Your task to perform on an android device: change the clock display to analog Image 0: 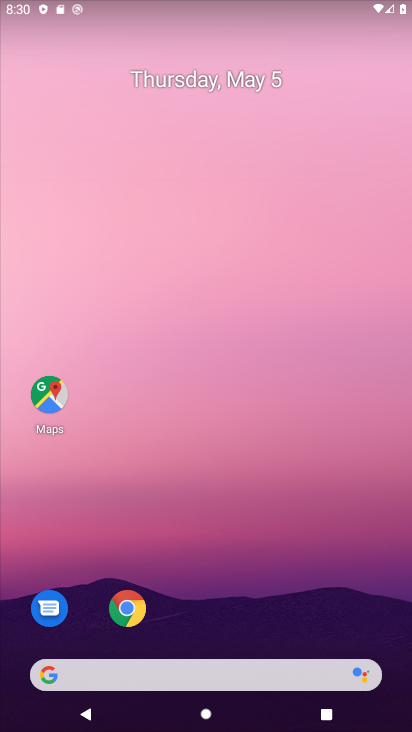
Step 0: drag from (243, 663) to (229, 98)
Your task to perform on an android device: change the clock display to analog Image 1: 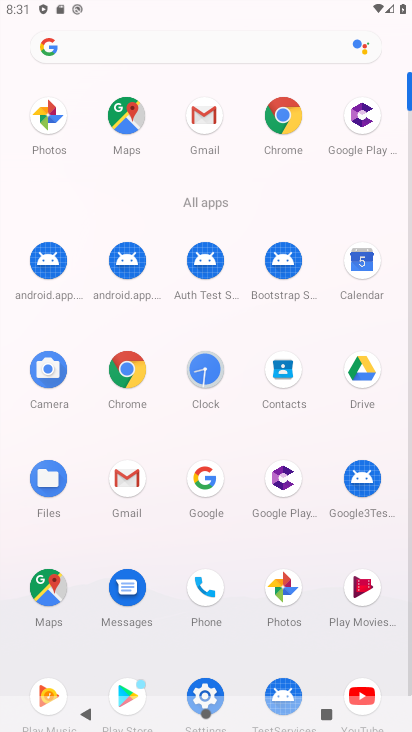
Step 1: click (210, 370)
Your task to perform on an android device: change the clock display to analog Image 2: 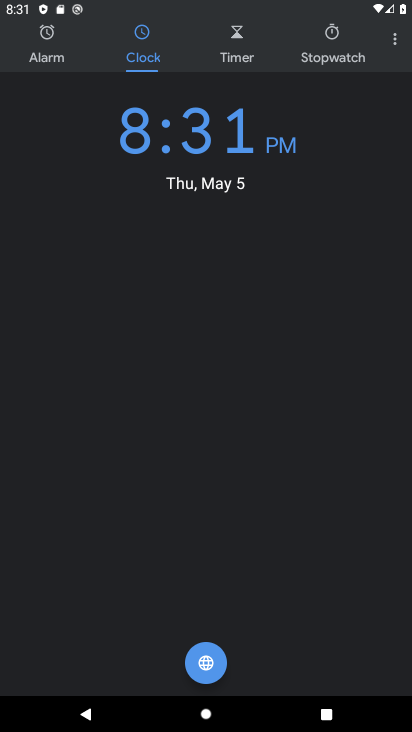
Step 2: click (396, 45)
Your task to perform on an android device: change the clock display to analog Image 3: 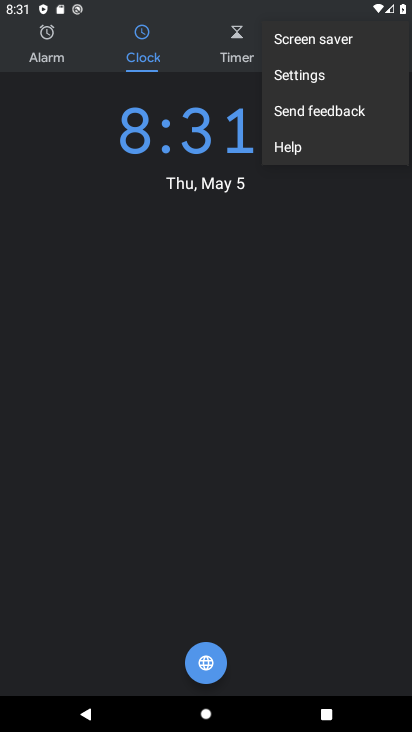
Step 3: click (329, 79)
Your task to perform on an android device: change the clock display to analog Image 4: 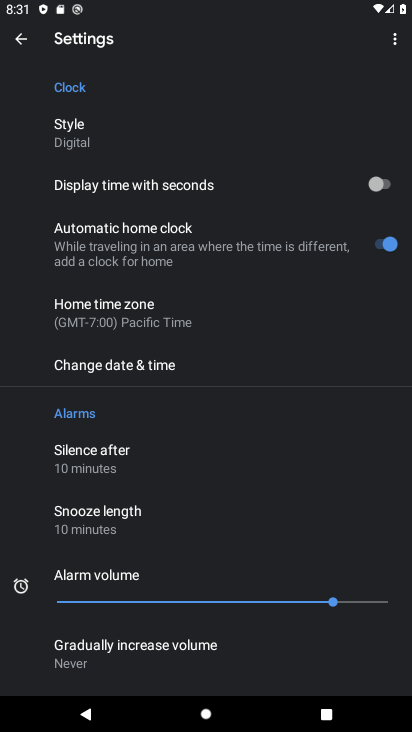
Step 4: click (220, 137)
Your task to perform on an android device: change the clock display to analog Image 5: 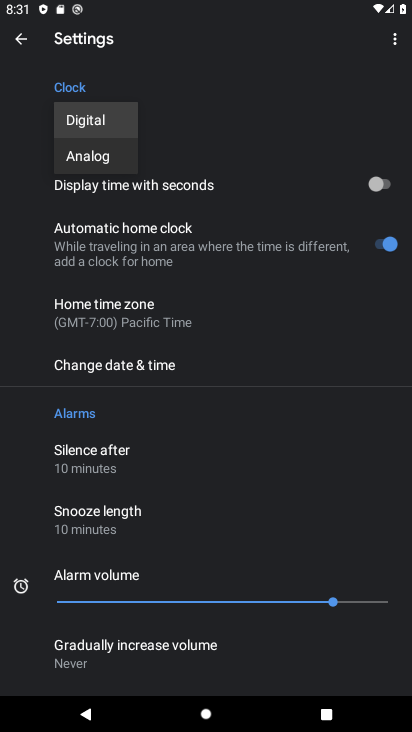
Step 5: click (111, 159)
Your task to perform on an android device: change the clock display to analog Image 6: 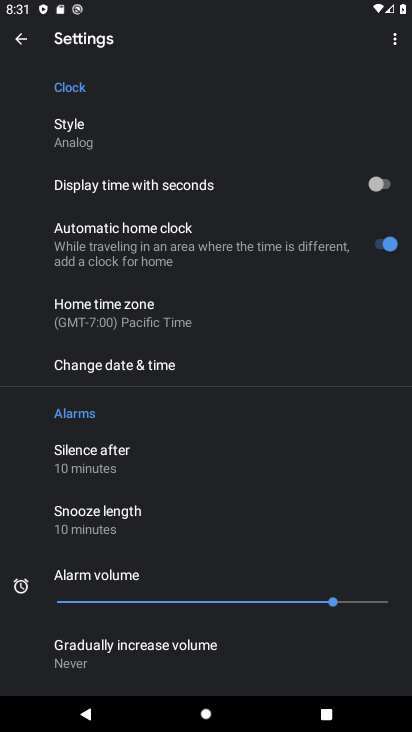
Step 6: task complete